Your task to perform on an android device: Open battery settings Image 0: 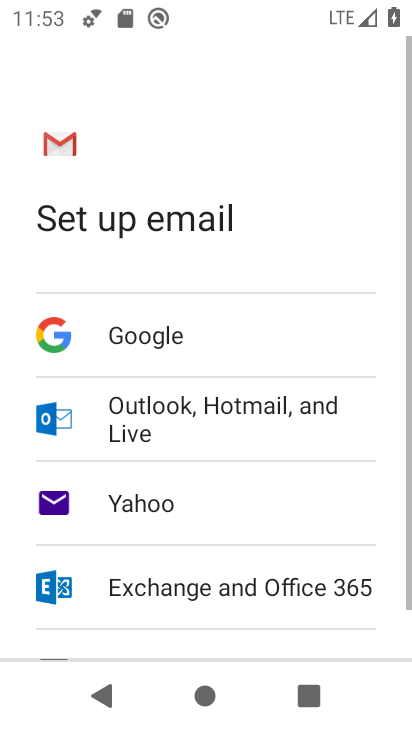
Step 0: press home button
Your task to perform on an android device: Open battery settings Image 1: 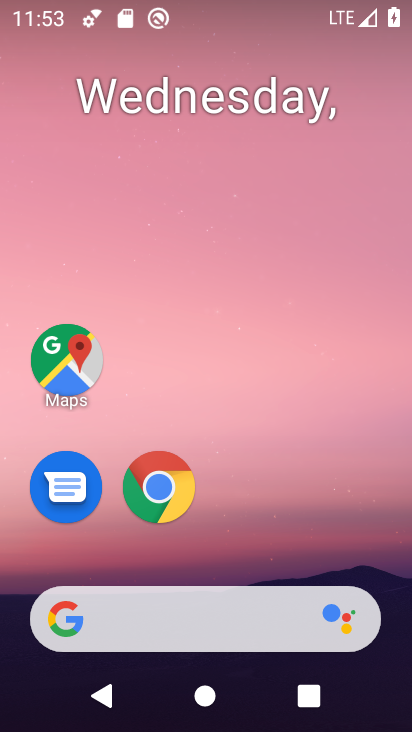
Step 1: drag from (340, 407) to (372, 155)
Your task to perform on an android device: Open battery settings Image 2: 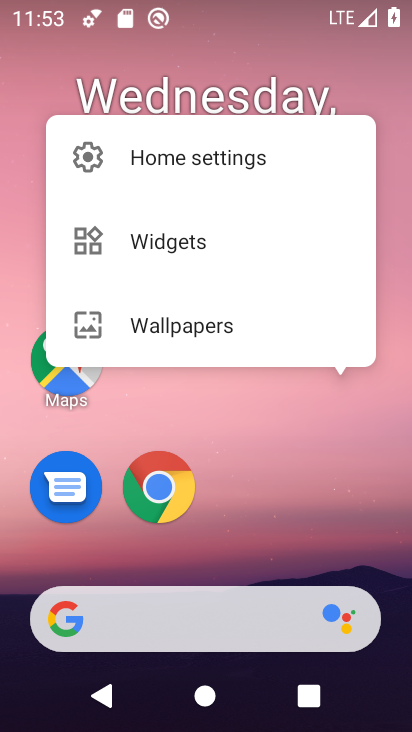
Step 2: click (376, 483)
Your task to perform on an android device: Open battery settings Image 3: 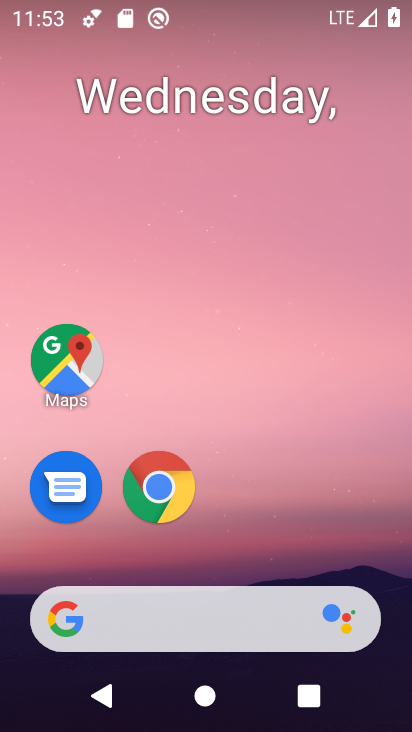
Step 3: drag from (324, 497) to (311, 75)
Your task to perform on an android device: Open battery settings Image 4: 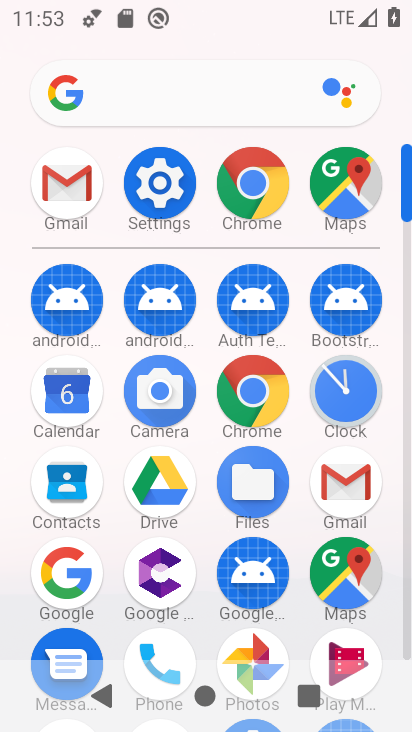
Step 4: click (168, 190)
Your task to perform on an android device: Open battery settings Image 5: 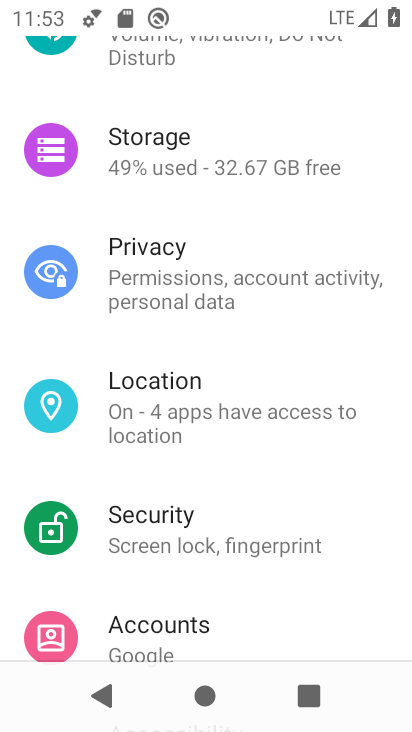
Step 5: drag from (377, 352) to (383, 490)
Your task to perform on an android device: Open battery settings Image 6: 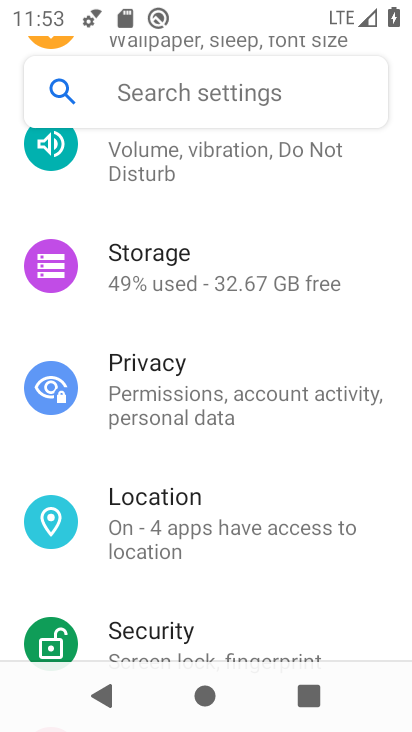
Step 6: drag from (391, 258) to (368, 461)
Your task to perform on an android device: Open battery settings Image 7: 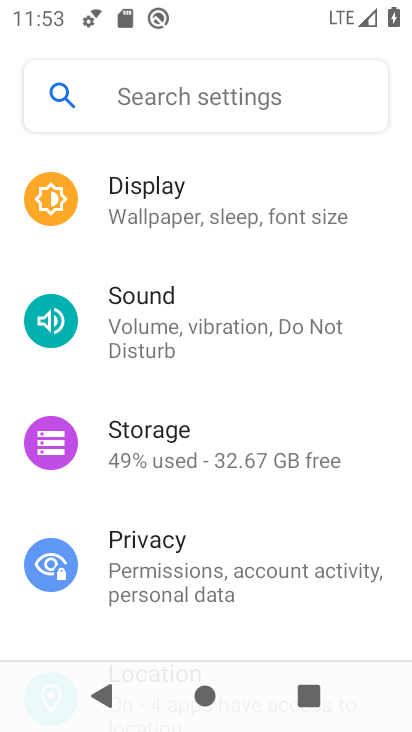
Step 7: drag from (370, 248) to (376, 422)
Your task to perform on an android device: Open battery settings Image 8: 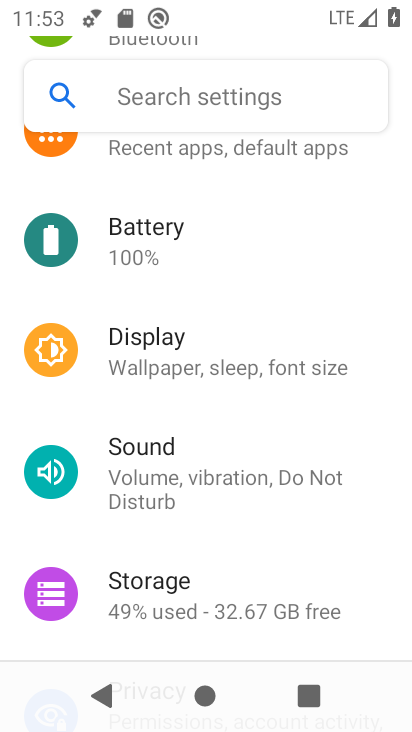
Step 8: drag from (354, 191) to (371, 370)
Your task to perform on an android device: Open battery settings Image 9: 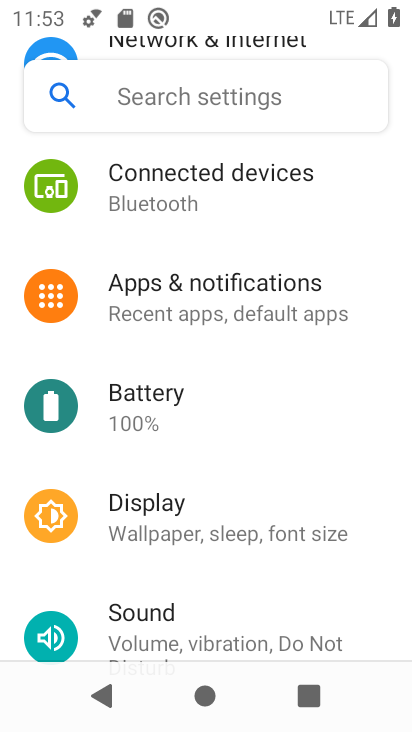
Step 9: drag from (352, 164) to (361, 324)
Your task to perform on an android device: Open battery settings Image 10: 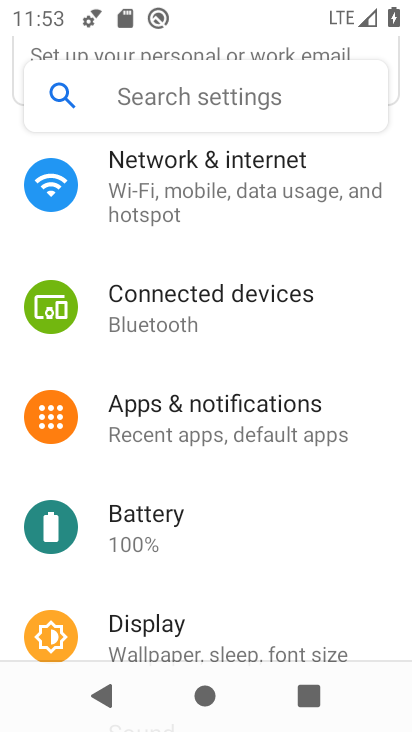
Step 10: click (237, 527)
Your task to perform on an android device: Open battery settings Image 11: 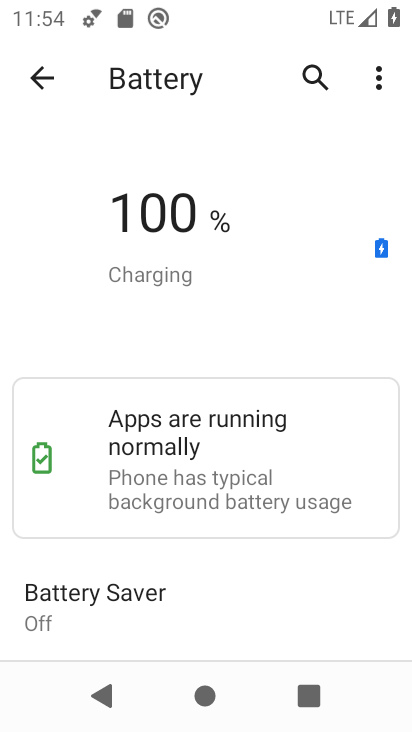
Step 11: task complete